Your task to perform on an android device: Go to network settings Image 0: 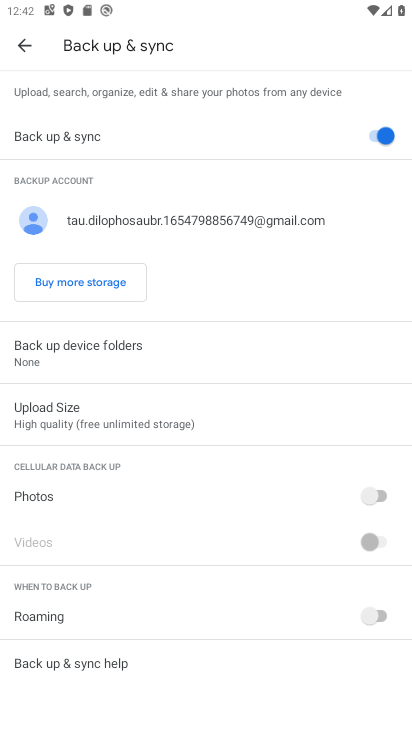
Step 0: press home button
Your task to perform on an android device: Go to network settings Image 1: 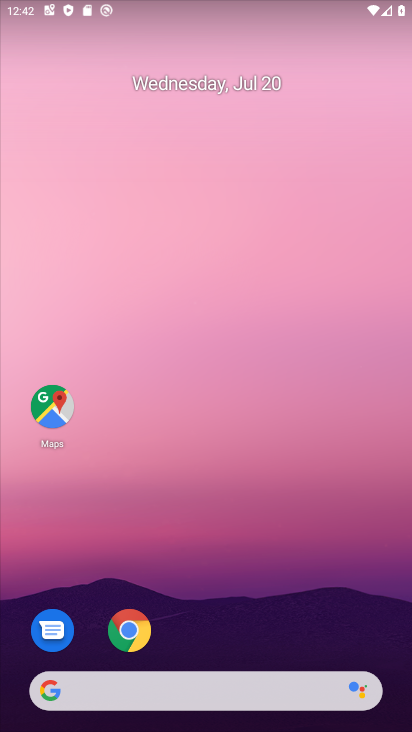
Step 1: drag from (256, 616) to (239, 0)
Your task to perform on an android device: Go to network settings Image 2: 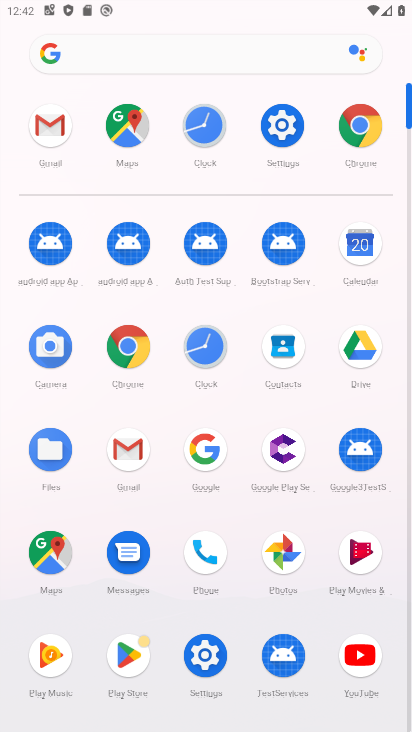
Step 2: click (281, 121)
Your task to perform on an android device: Go to network settings Image 3: 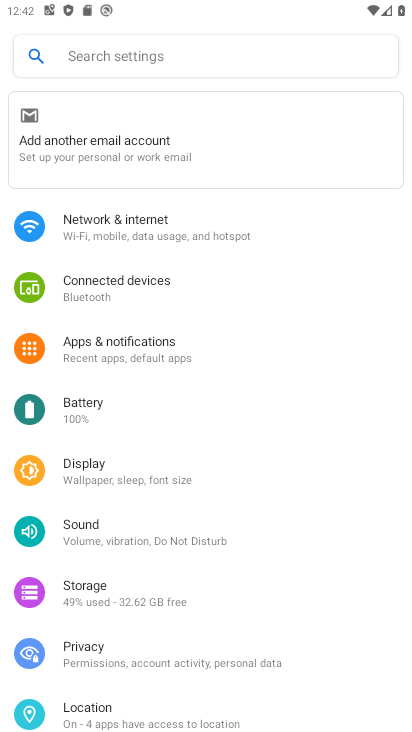
Step 3: click (116, 220)
Your task to perform on an android device: Go to network settings Image 4: 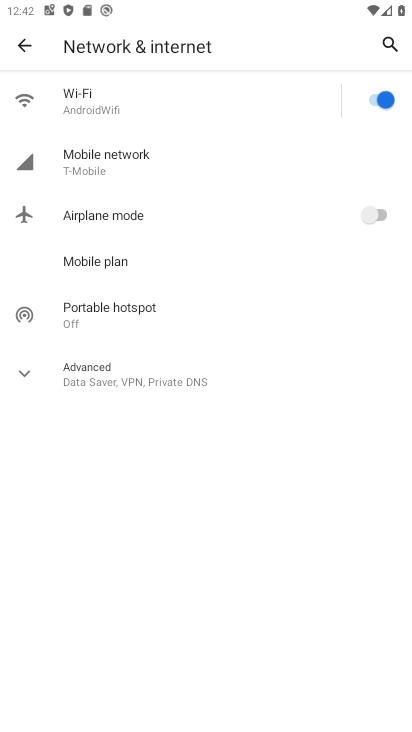
Step 4: task complete